Your task to perform on an android device: Turn on the flashlight Image 0: 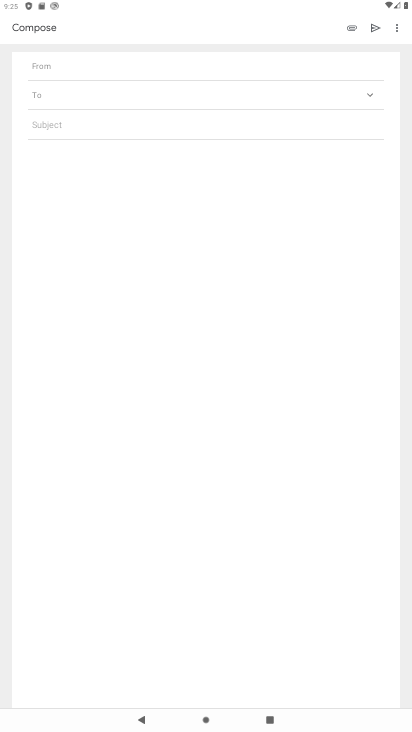
Step 0: drag from (209, 654) to (245, 131)
Your task to perform on an android device: Turn on the flashlight Image 1: 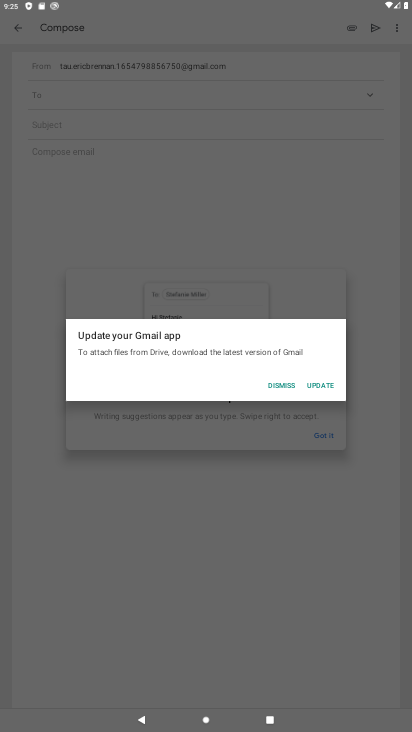
Step 1: click (272, 381)
Your task to perform on an android device: Turn on the flashlight Image 2: 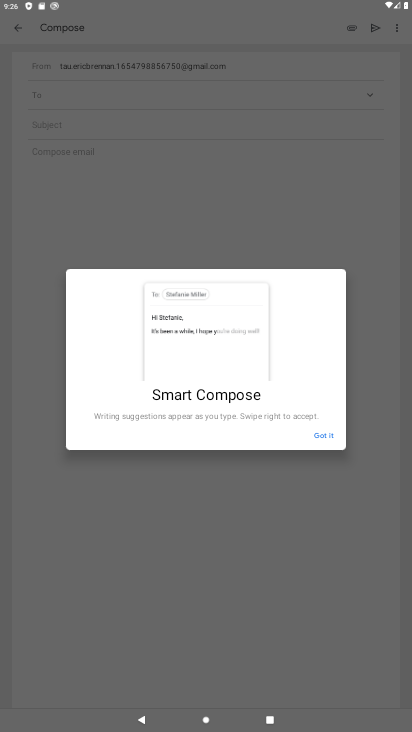
Step 2: click (328, 438)
Your task to perform on an android device: Turn on the flashlight Image 3: 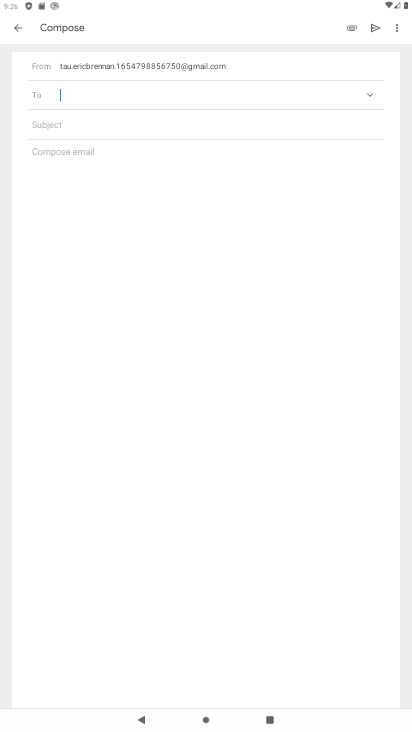
Step 3: press home button
Your task to perform on an android device: Turn on the flashlight Image 4: 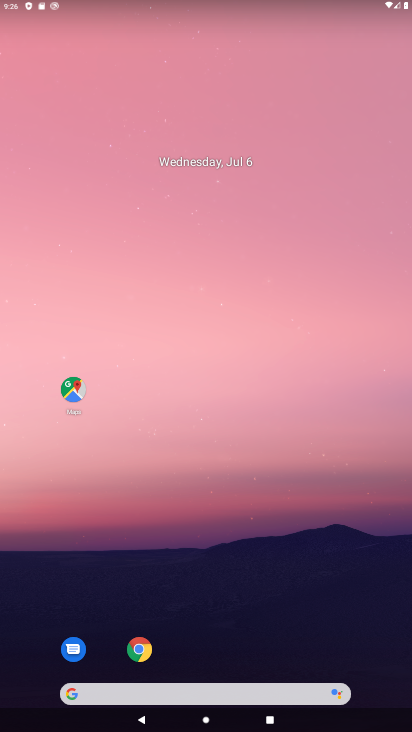
Step 4: drag from (201, 7) to (215, 430)
Your task to perform on an android device: Turn on the flashlight Image 5: 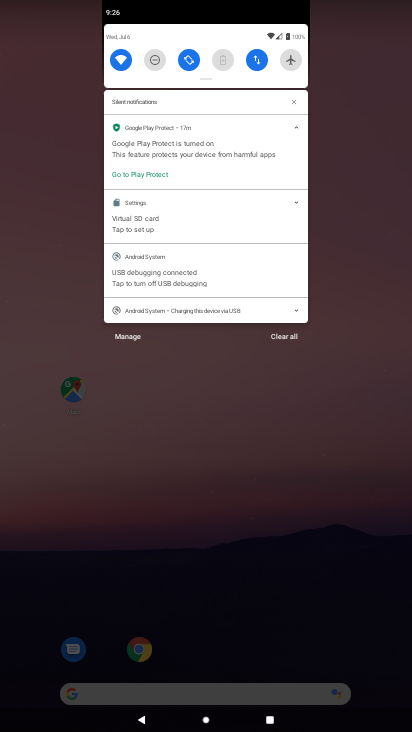
Step 5: click (288, 339)
Your task to perform on an android device: Turn on the flashlight Image 6: 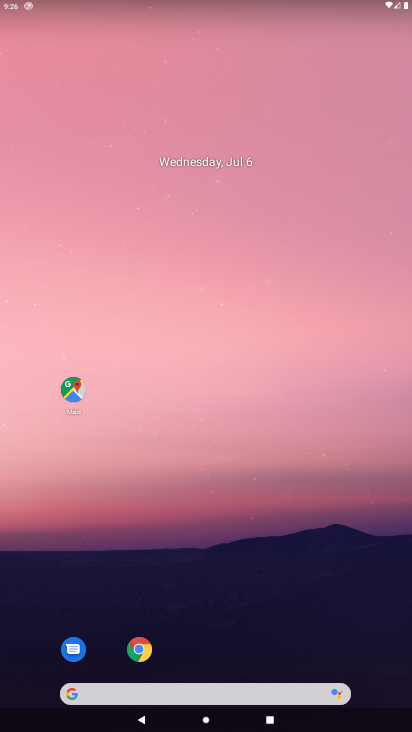
Step 6: drag from (222, 654) to (246, 67)
Your task to perform on an android device: Turn on the flashlight Image 7: 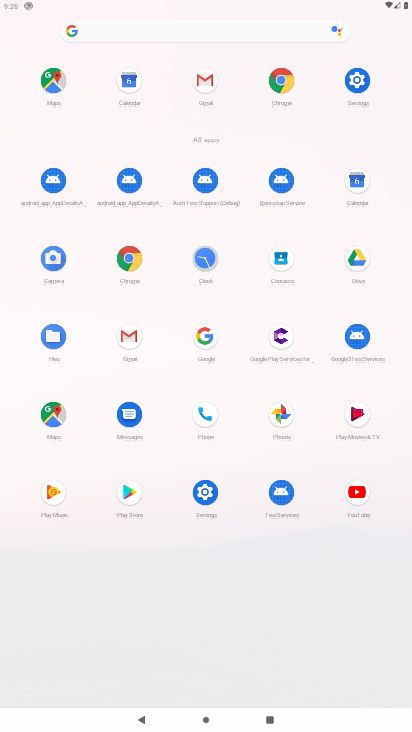
Step 7: click (358, 73)
Your task to perform on an android device: Turn on the flashlight Image 8: 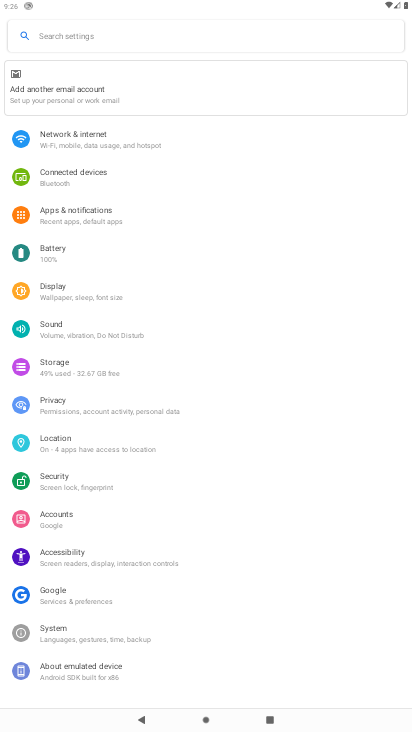
Step 8: click (94, 30)
Your task to perform on an android device: Turn on the flashlight Image 9: 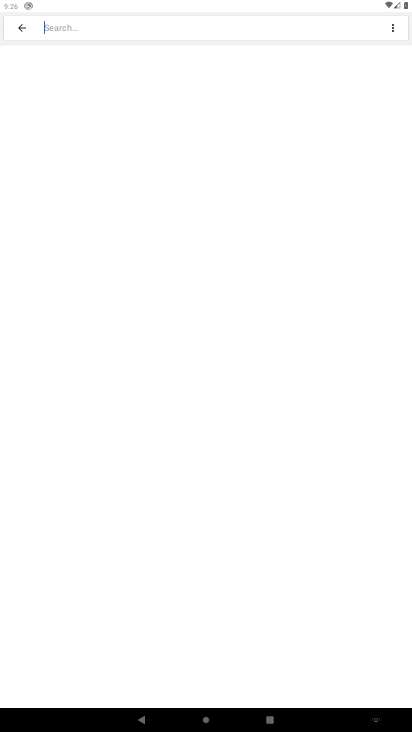
Step 9: type "flashlight"
Your task to perform on an android device: Turn on the flashlight Image 10: 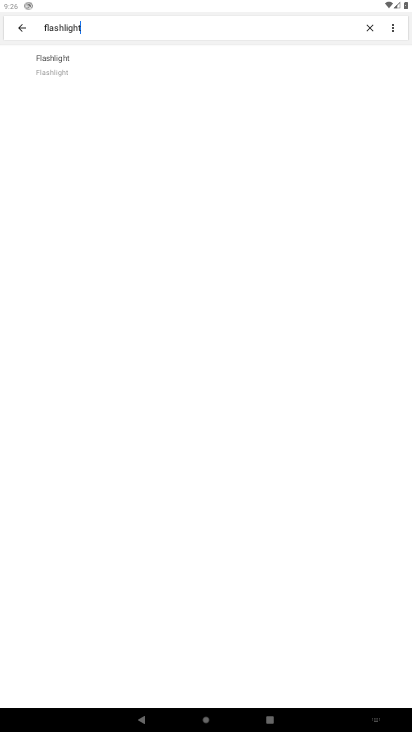
Step 10: click (81, 64)
Your task to perform on an android device: Turn on the flashlight Image 11: 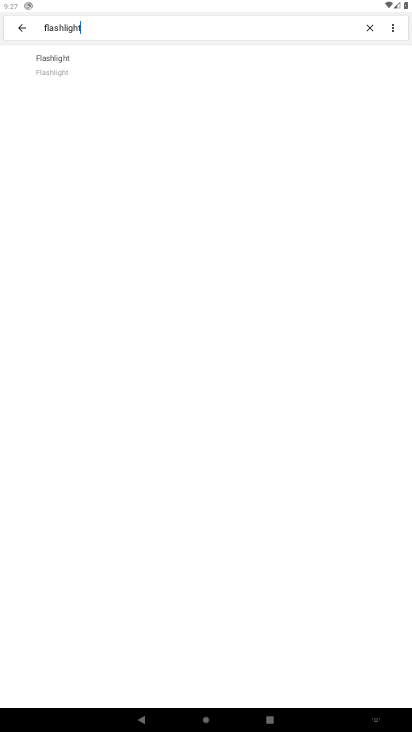
Step 11: click (81, 58)
Your task to perform on an android device: Turn on the flashlight Image 12: 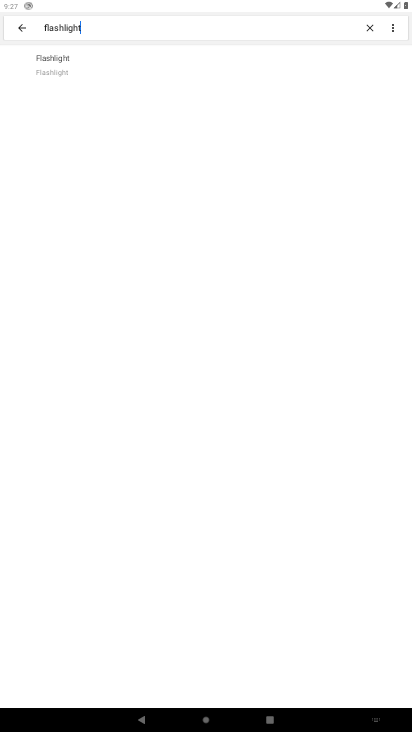
Step 12: task complete